Your task to perform on an android device: Go to settings Image 0: 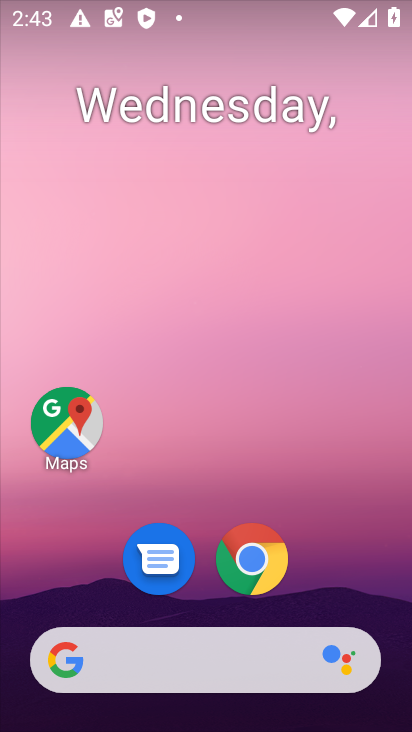
Step 0: drag from (208, 467) to (208, 119)
Your task to perform on an android device: Go to settings Image 1: 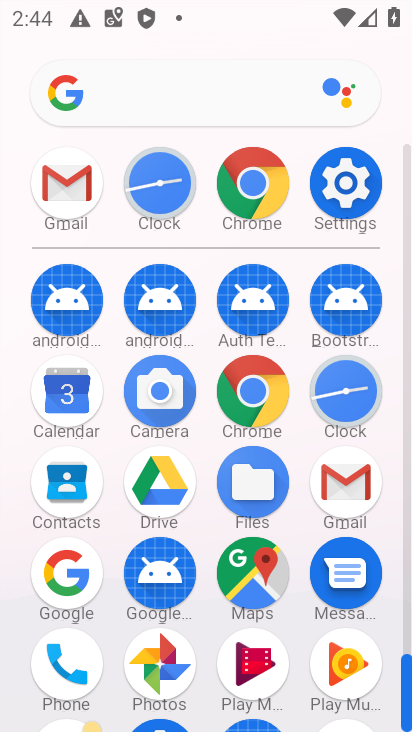
Step 1: click (354, 188)
Your task to perform on an android device: Go to settings Image 2: 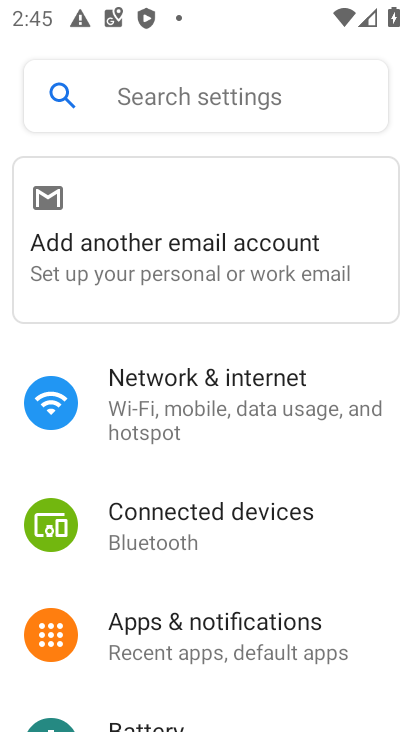
Step 2: task complete